Your task to perform on an android device: Turn off the flashlight Image 0: 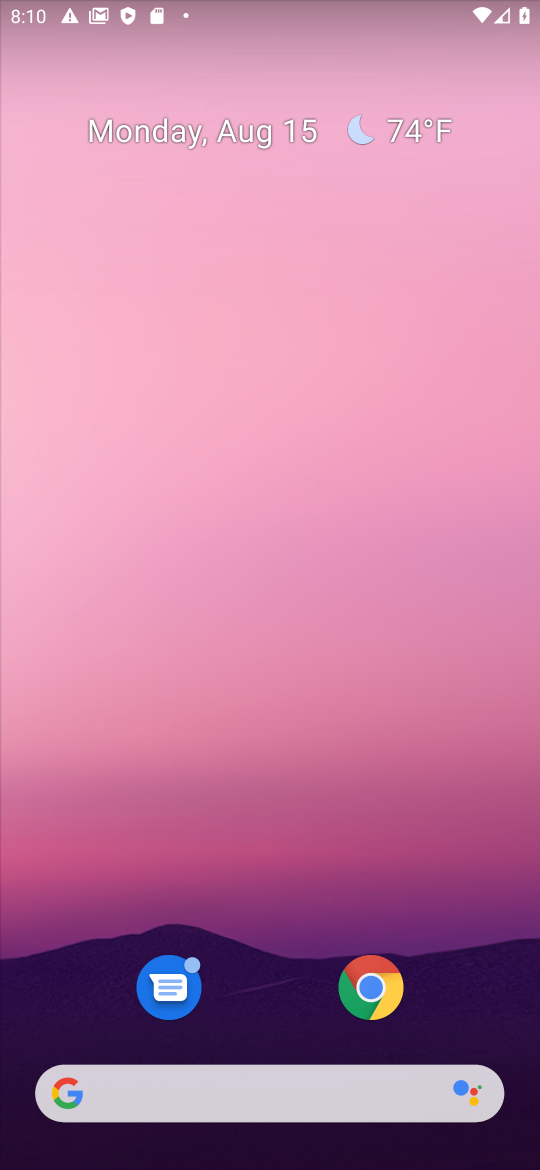
Step 0: drag from (411, 8) to (352, 926)
Your task to perform on an android device: Turn off the flashlight Image 1: 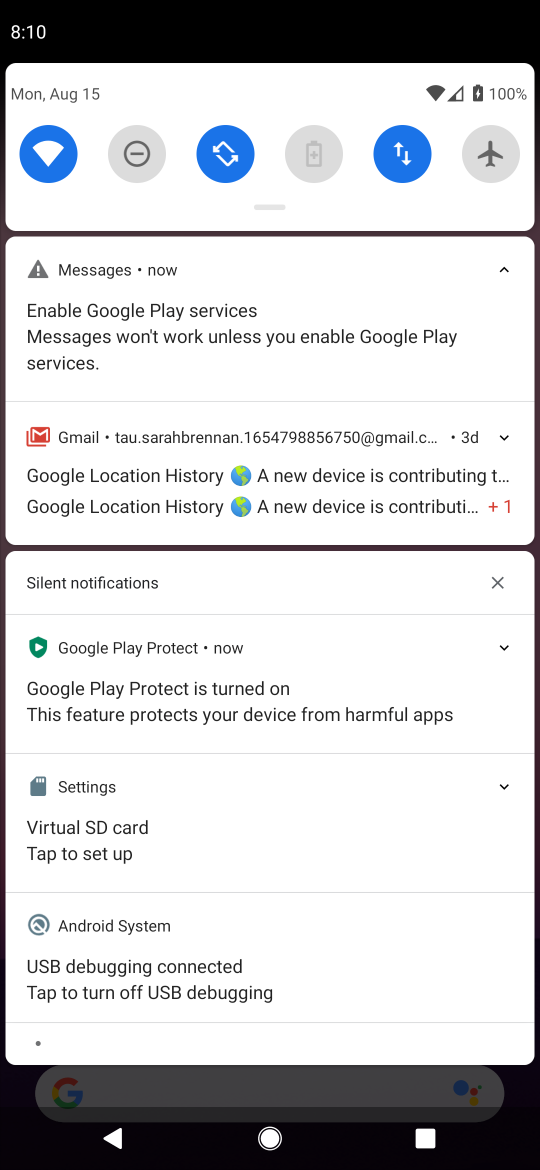
Step 1: drag from (179, 185) to (214, 975)
Your task to perform on an android device: Turn off the flashlight Image 2: 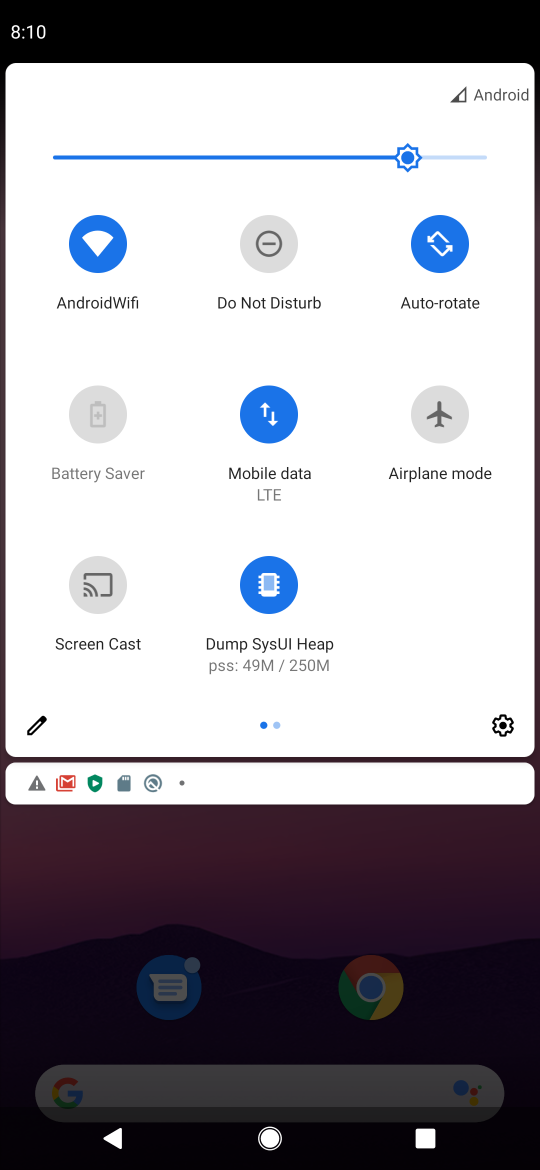
Step 2: drag from (460, 585) to (15, 734)
Your task to perform on an android device: Turn off the flashlight Image 3: 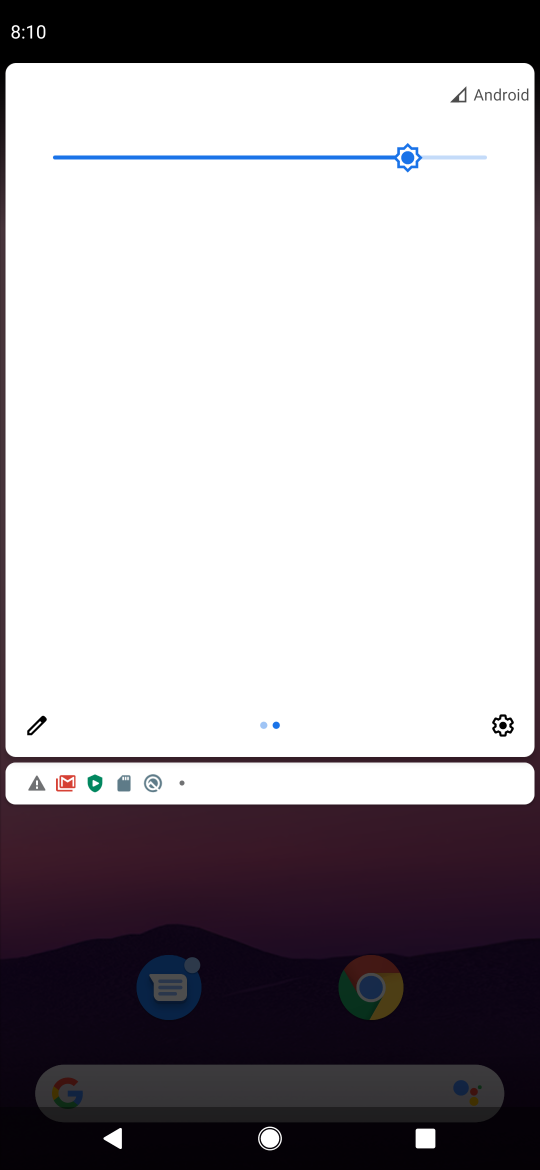
Step 3: click (27, 728)
Your task to perform on an android device: Turn off the flashlight Image 4: 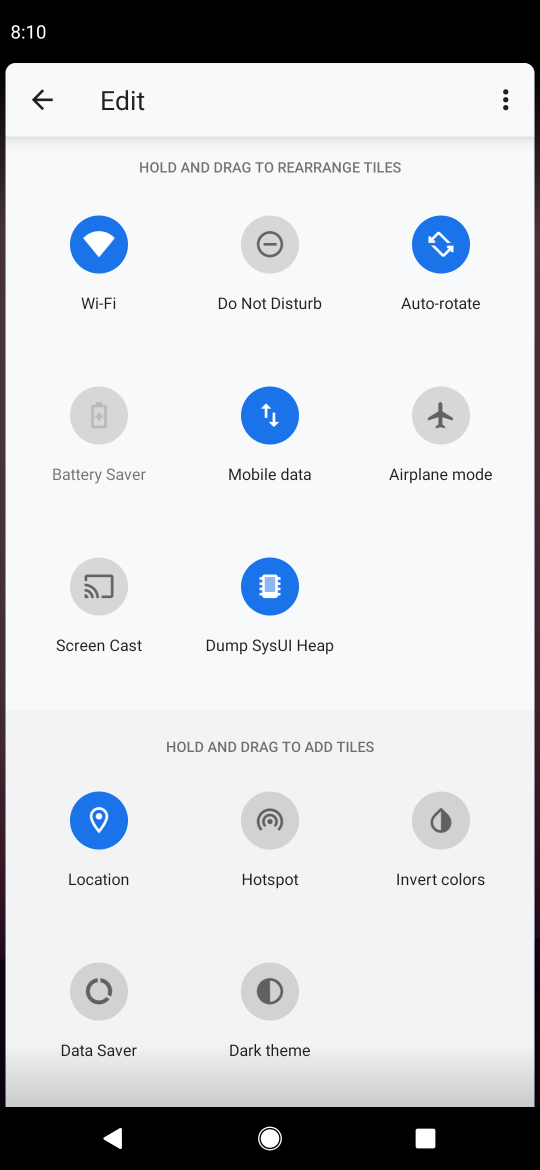
Step 4: task complete